Your task to perform on an android device: toggle data saver in the chrome app Image 0: 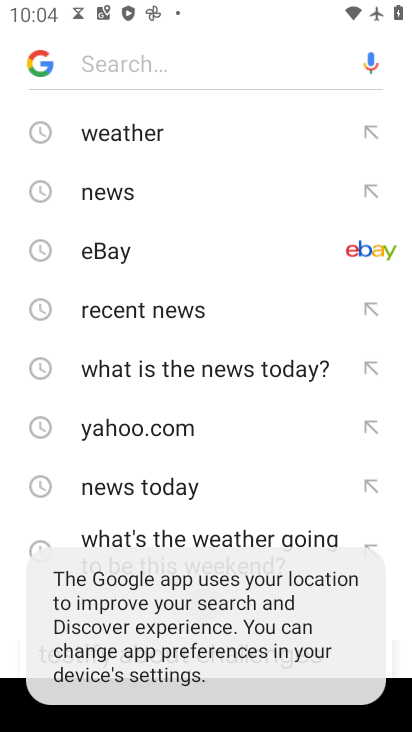
Step 0: press back button
Your task to perform on an android device: toggle data saver in the chrome app Image 1: 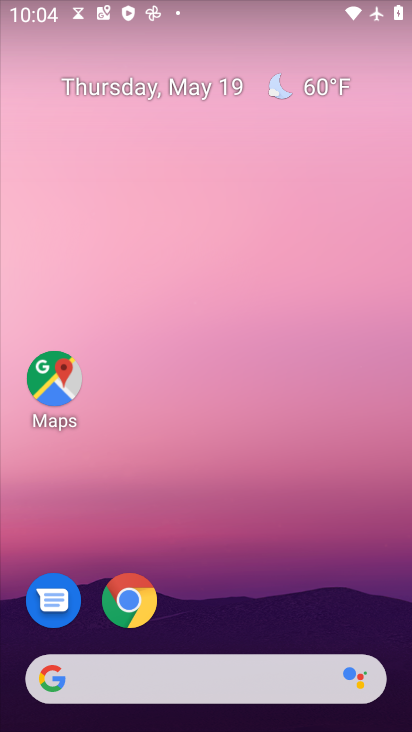
Step 1: drag from (200, 415) to (198, 21)
Your task to perform on an android device: toggle data saver in the chrome app Image 2: 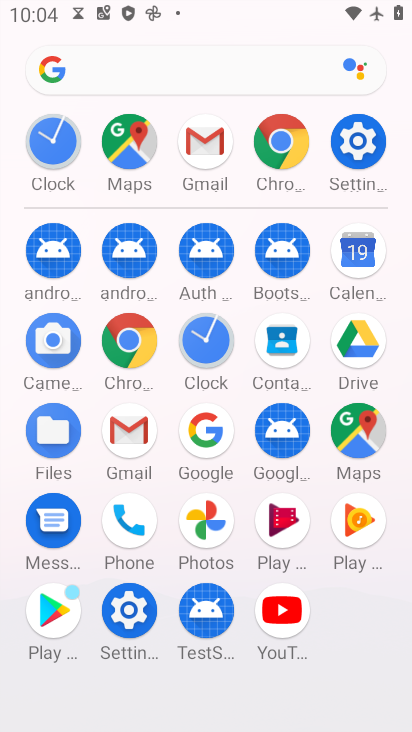
Step 2: click (127, 338)
Your task to perform on an android device: toggle data saver in the chrome app Image 3: 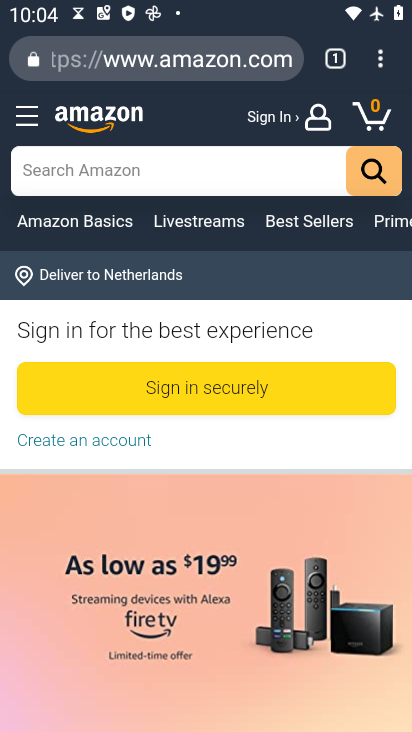
Step 3: drag from (381, 52) to (220, 616)
Your task to perform on an android device: toggle data saver in the chrome app Image 4: 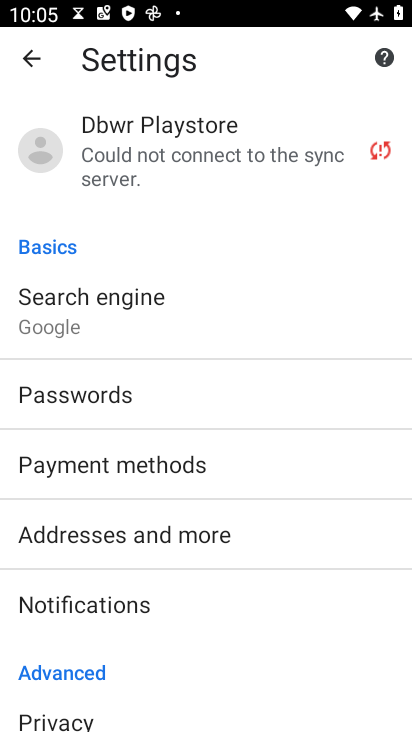
Step 4: drag from (227, 604) to (251, 197)
Your task to perform on an android device: toggle data saver in the chrome app Image 5: 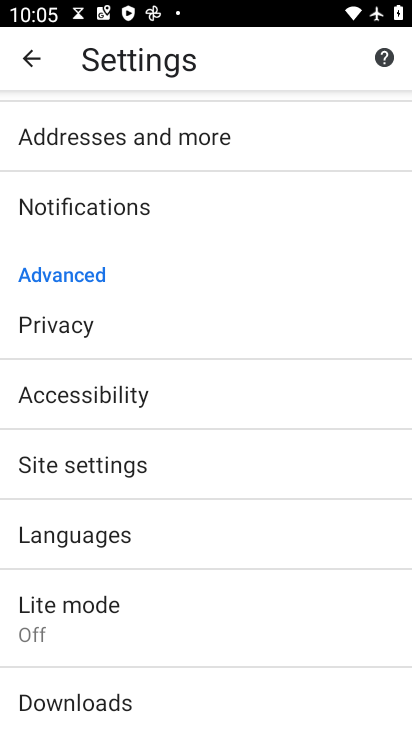
Step 5: drag from (215, 569) to (213, 217)
Your task to perform on an android device: toggle data saver in the chrome app Image 6: 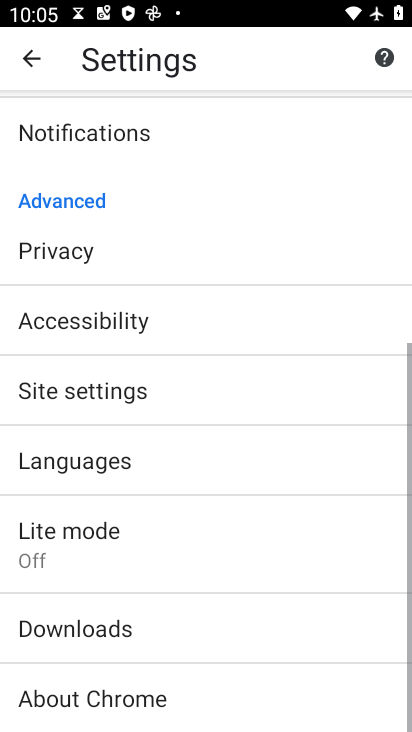
Step 6: click (114, 564)
Your task to perform on an android device: toggle data saver in the chrome app Image 7: 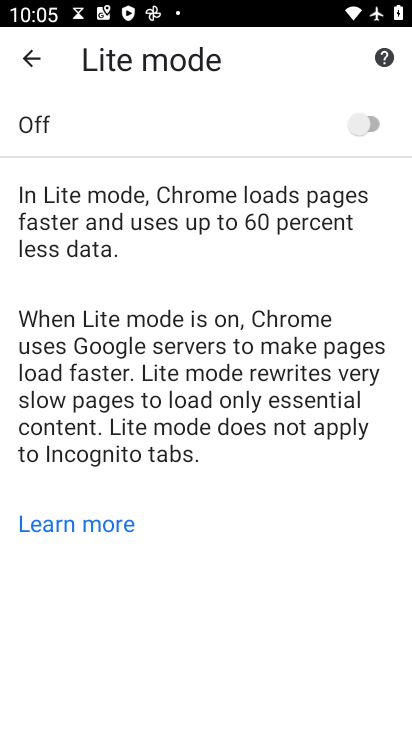
Step 7: click (364, 120)
Your task to perform on an android device: toggle data saver in the chrome app Image 8: 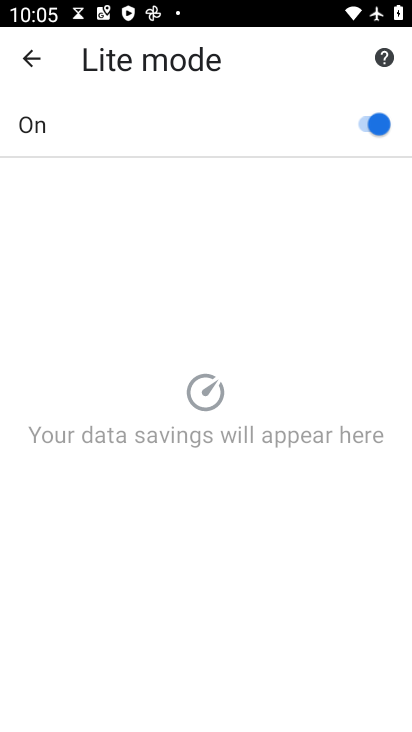
Step 8: task complete